Your task to perform on an android device: Open maps Image 0: 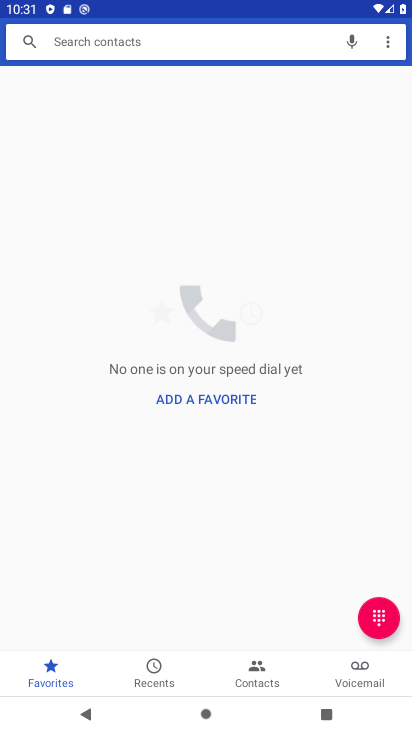
Step 0: press home button
Your task to perform on an android device: Open maps Image 1: 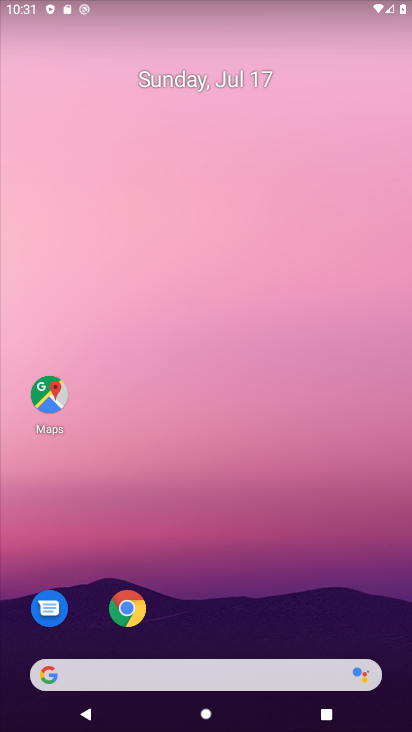
Step 1: drag from (236, 637) to (161, 172)
Your task to perform on an android device: Open maps Image 2: 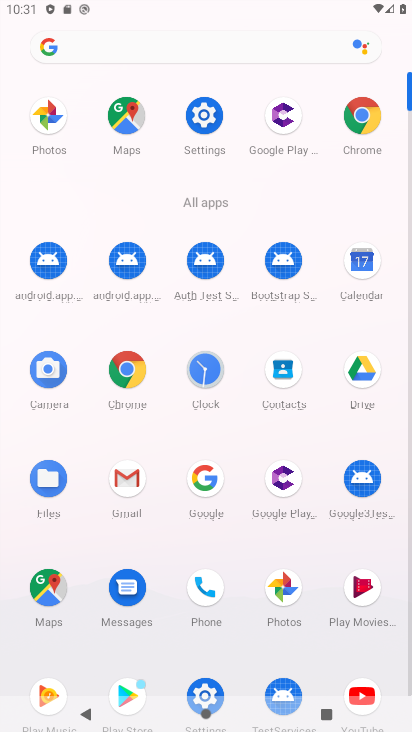
Step 2: click (131, 125)
Your task to perform on an android device: Open maps Image 3: 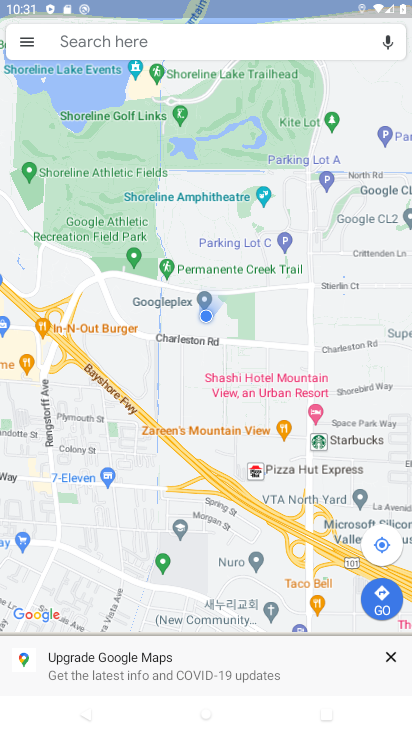
Step 3: task complete